Your task to perform on an android device: turn on translation in the chrome app Image 0: 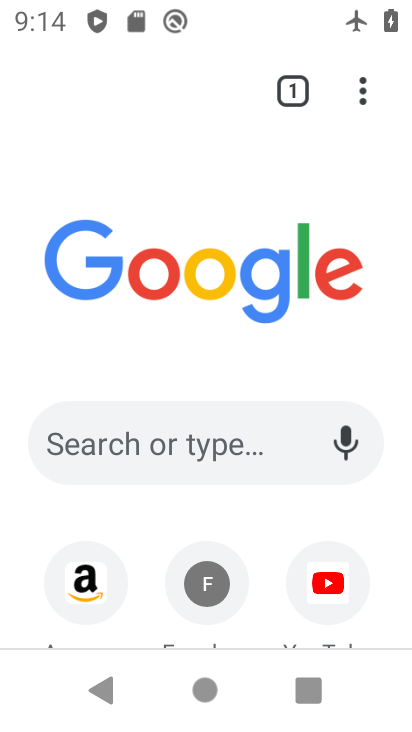
Step 0: press home button
Your task to perform on an android device: turn on translation in the chrome app Image 1: 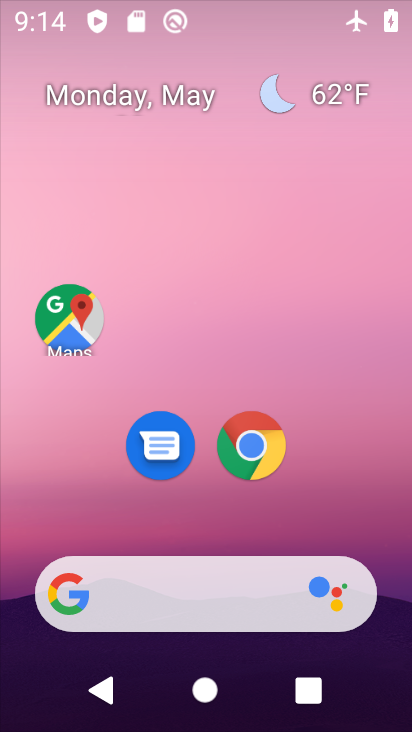
Step 1: drag from (391, 517) to (337, 71)
Your task to perform on an android device: turn on translation in the chrome app Image 2: 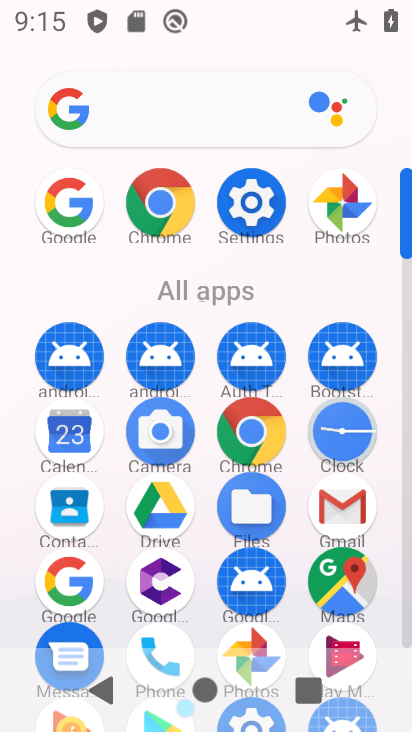
Step 2: click (238, 442)
Your task to perform on an android device: turn on translation in the chrome app Image 3: 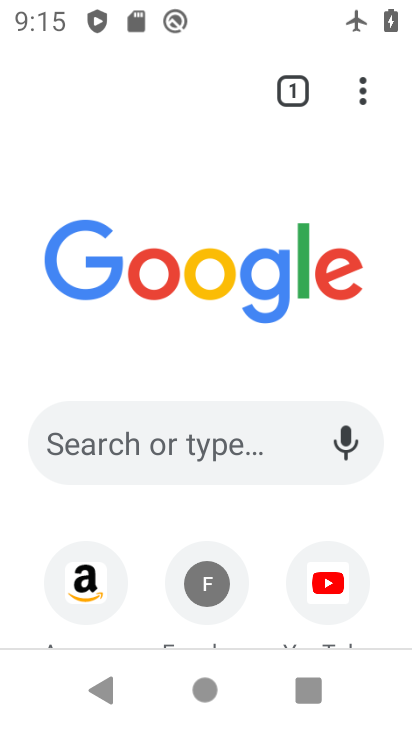
Step 3: click (364, 90)
Your task to perform on an android device: turn on translation in the chrome app Image 4: 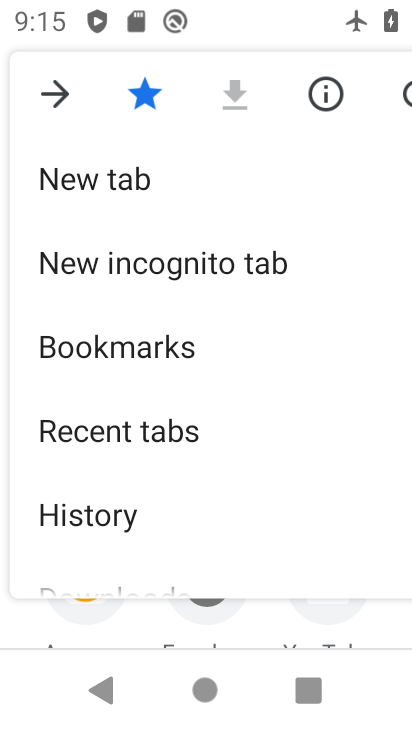
Step 4: drag from (141, 523) to (160, 68)
Your task to perform on an android device: turn on translation in the chrome app Image 5: 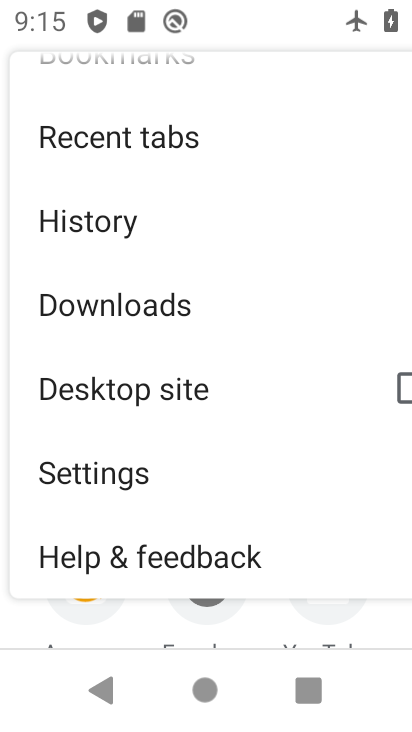
Step 5: click (186, 498)
Your task to perform on an android device: turn on translation in the chrome app Image 6: 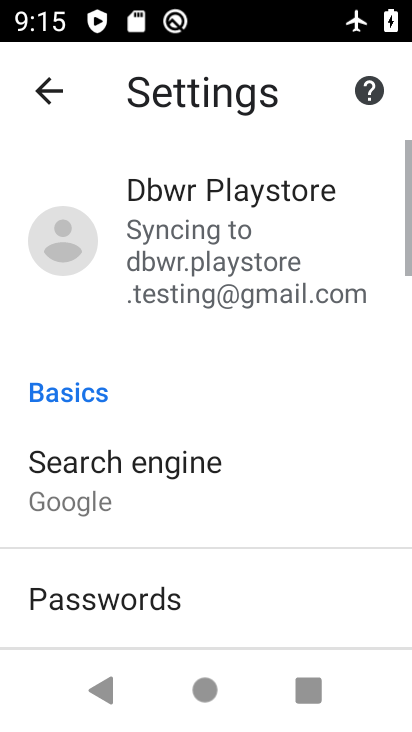
Step 6: drag from (164, 609) to (182, 135)
Your task to perform on an android device: turn on translation in the chrome app Image 7: 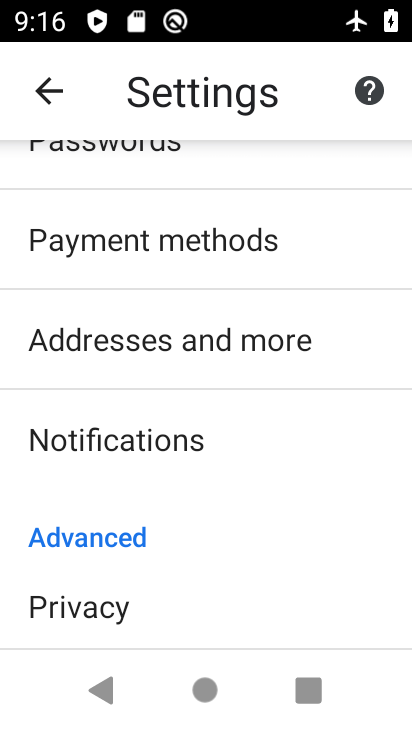
Step 7: drag from (146, 616) to (166, 153)
Your task to perform on an android device: turn on translation in the chrome app Image 8: 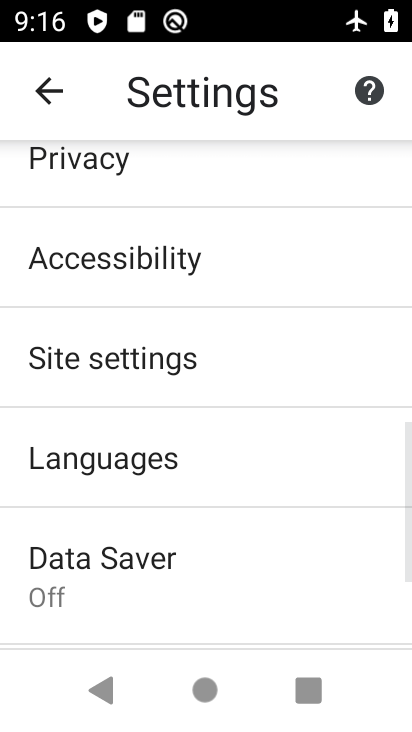
Step 8: click (171, 463)
Your task to perform on an android device: turn on translation in the chrome app Image 9: 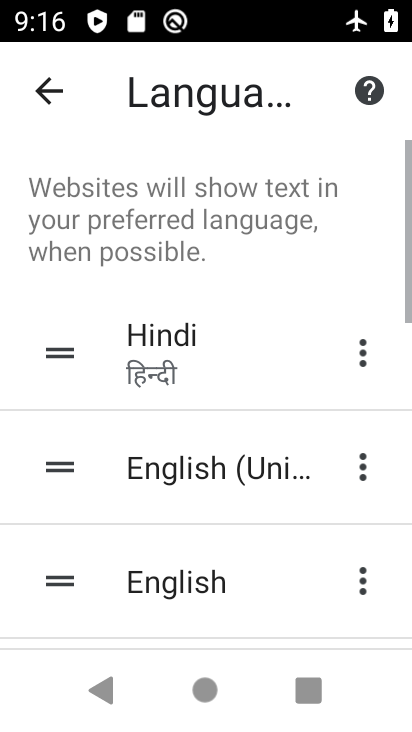
Step 9: task complete